Your task to perform on an android device: toggle pop-ups in chrome Image 0: 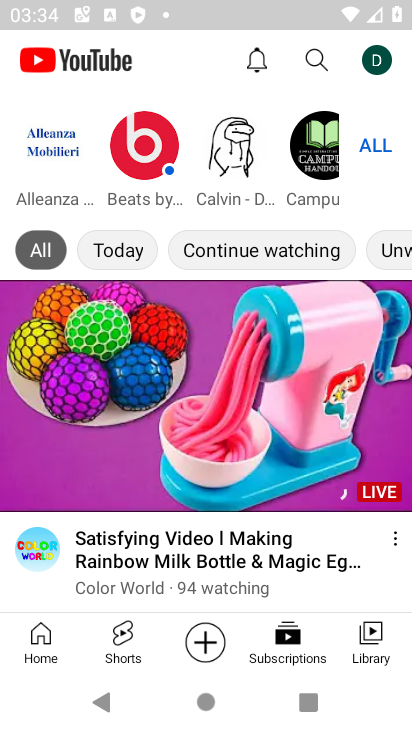
Step 0: press home button
Your task to perform on an android device: toggle pop-ups in chrome Image 1: 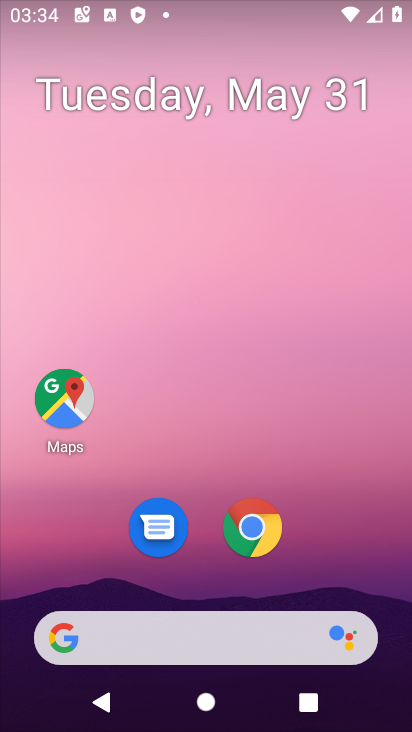
Step 1: click (249, 523)
Your task to perform on an android device: toggle pop-ups in chrome Image 2: 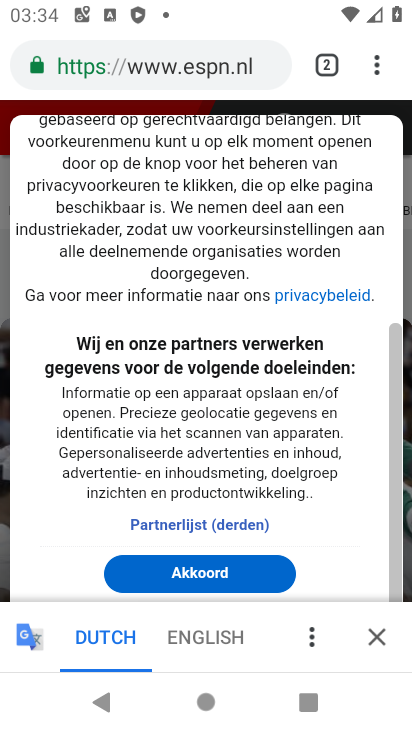
Step 2: click (371, 70)
Your task to perform on an android device: toggle pop-ups in chrome Image 3: 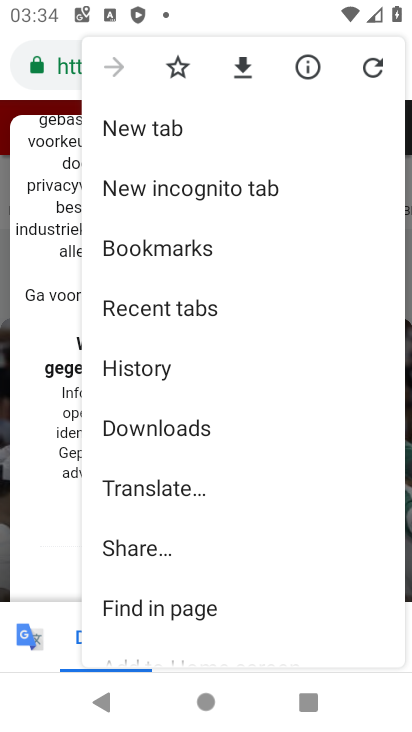
Step 3: drag from (235, 593) to (253, 157)
Your task to perform on an android device: toggle pop-ups in chrome Image 4: 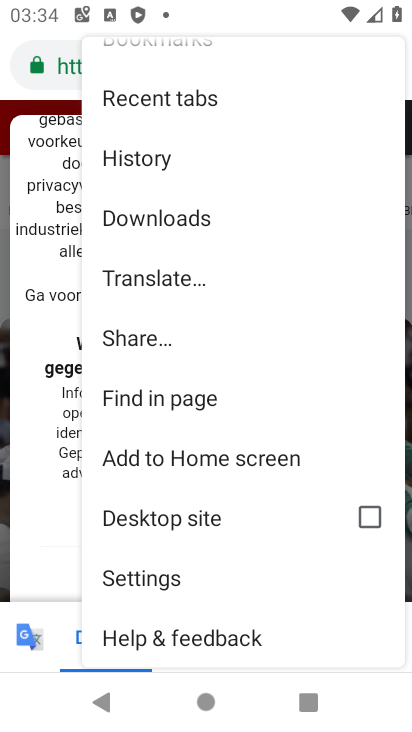
Step 4: click (151, 590)
Your task to perform on an android device: toggle pop-ups in chrome Image 5: 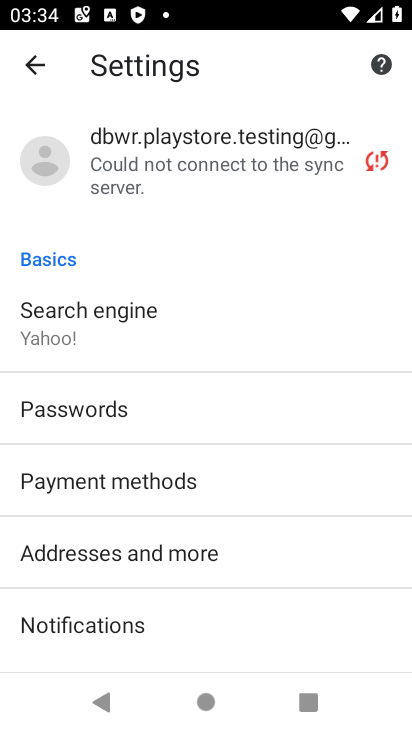
Step 5: drag from (257, 601) to (246, 171)
Your task to perform on an android device: toggle pop-ups in chrome Image 6: 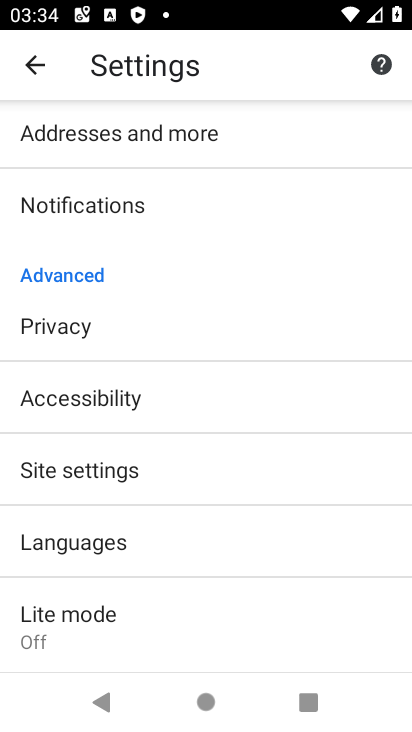
Step 6: click (89, 472)
Your task to perform on an android device: toggle pop-ups in chrome Image 7: 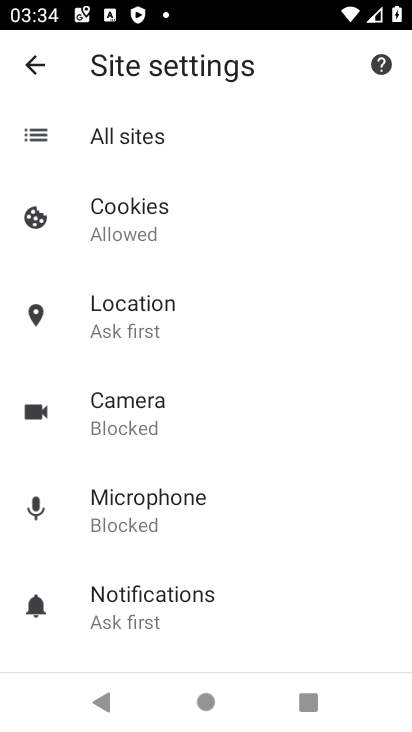
Step 7: drag from (308, 593) to (246, 152)
Your task to perform on an android device: toggle pop-ups in chrome Image 8: 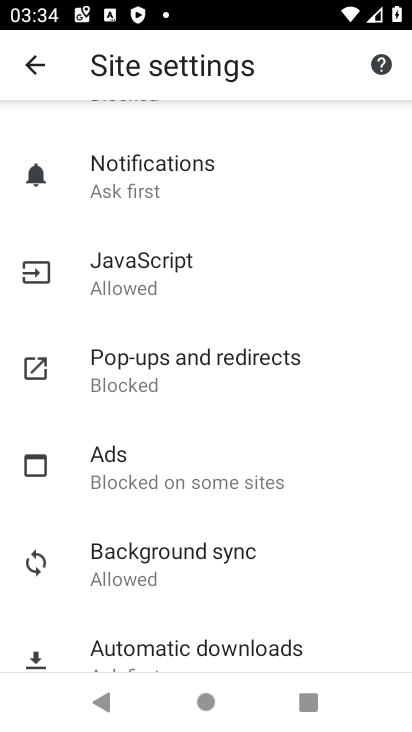
Step 8: click (137, 358)
Your task to perform on an android device: toggle pop-ups in chrome Image 9: 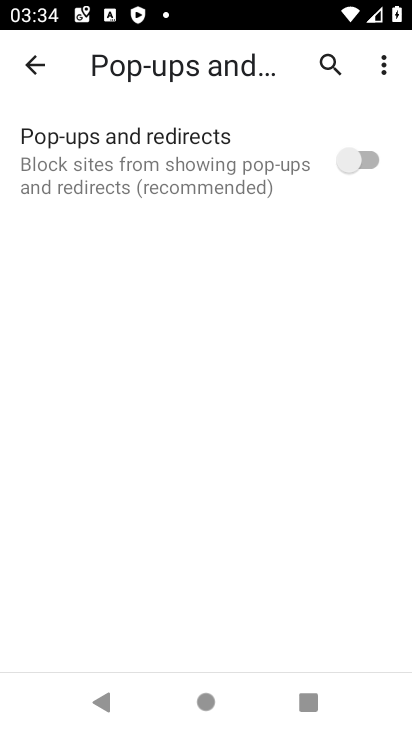
Step 9: click (379, 157)
Your task to perform on an android device: toggle pop-ups in chrome Image 10: 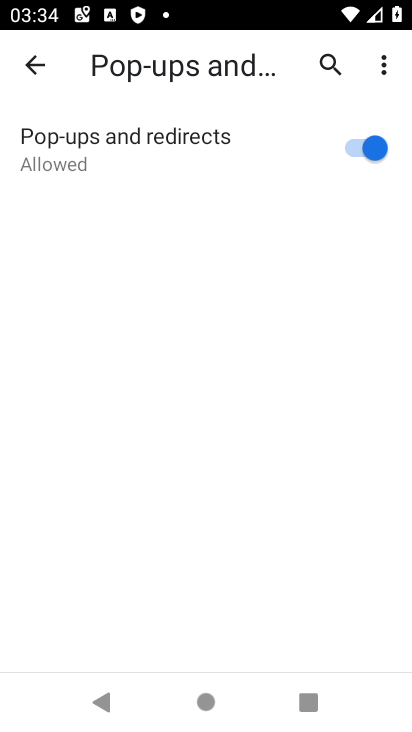
Step 10: task complete